Your task to perform on an android device: all mails in gmail Image 0: 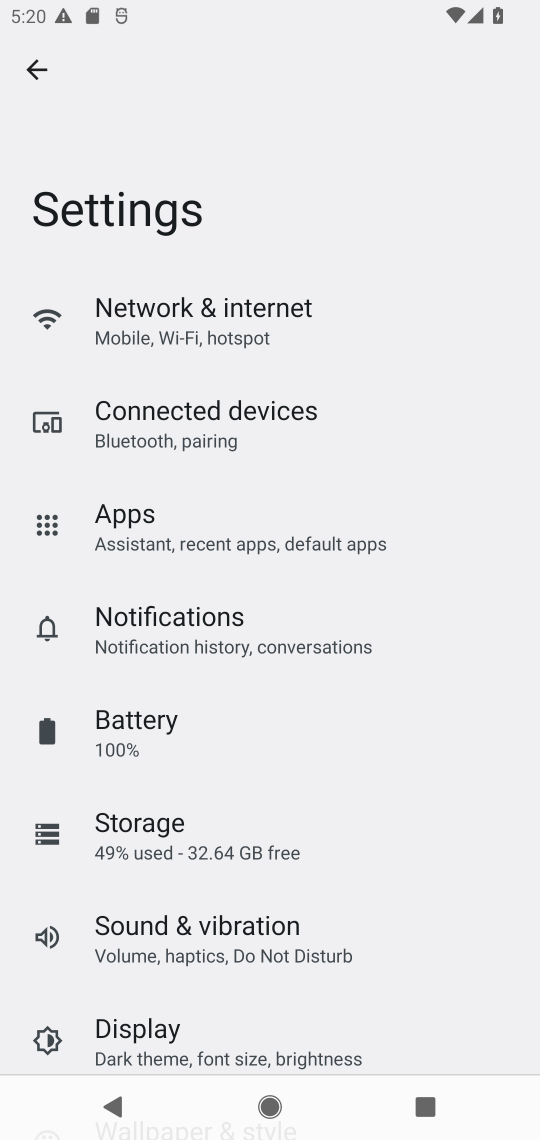
Step 0: press home button
Your task to perform on an android device: all mails in gmail Image 1: 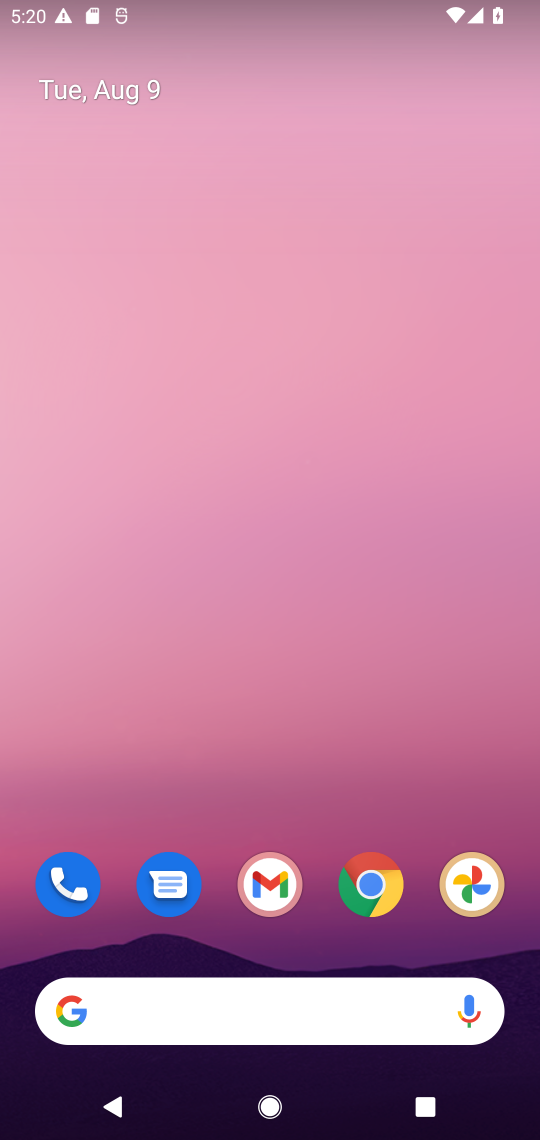
Step 1: click (273, 887)
Your task to perform on an android device: all mails in gmail Image 2: 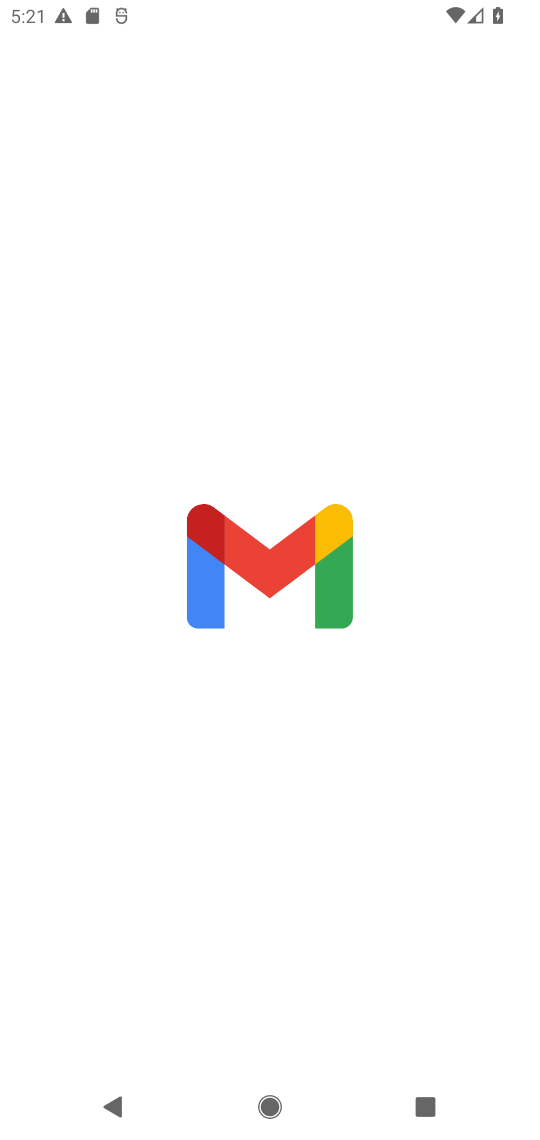
Step 2: press home button
Your task to perform on an android device: all mails in gmail Image 3: 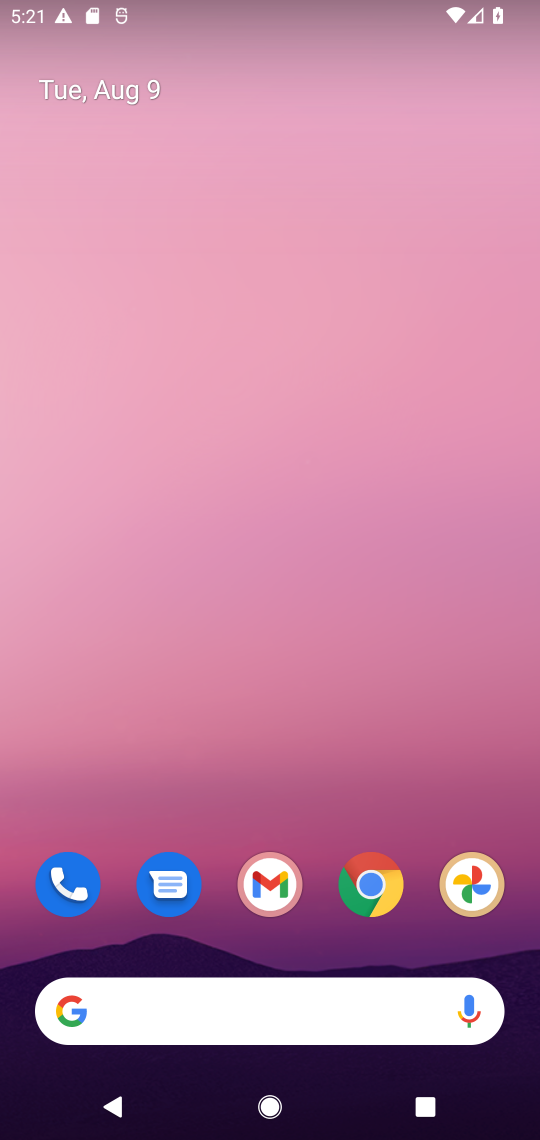
Step 3: click (271, 881)
Your task to perform on an android device: all mails in gmail Image 4: 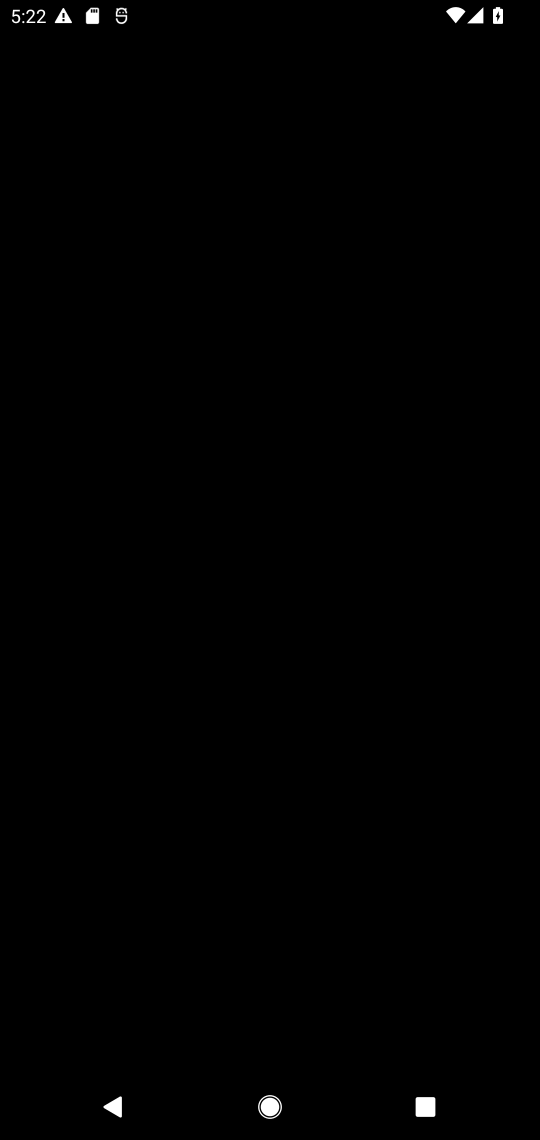
Step 4: press back button
Your task to perform on an android device: all mails in gmail Image 5: 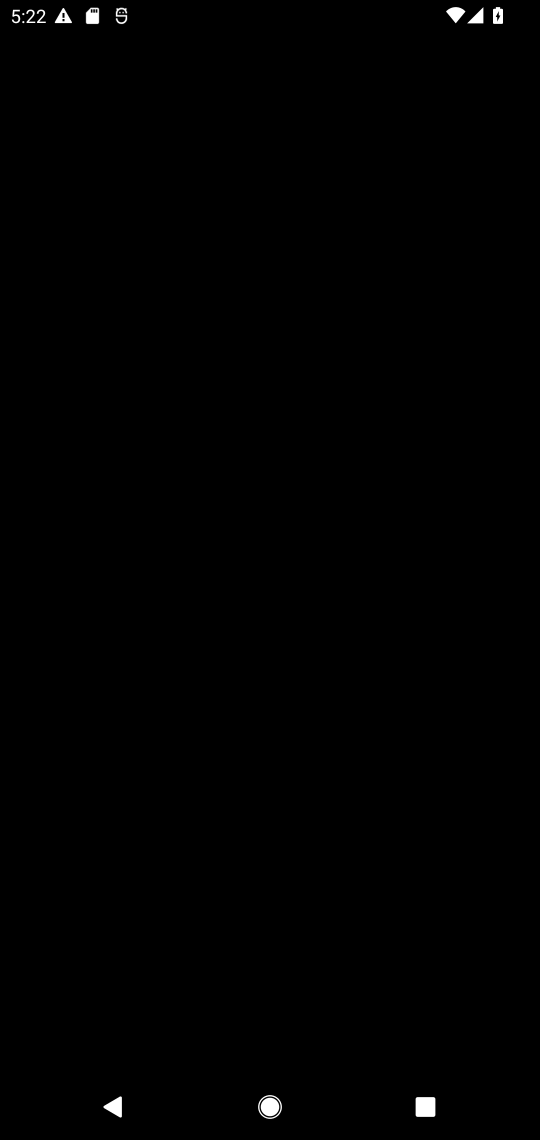
Step 5: press home button
Your task to perform on an android device: all mails in gmail Image 6: 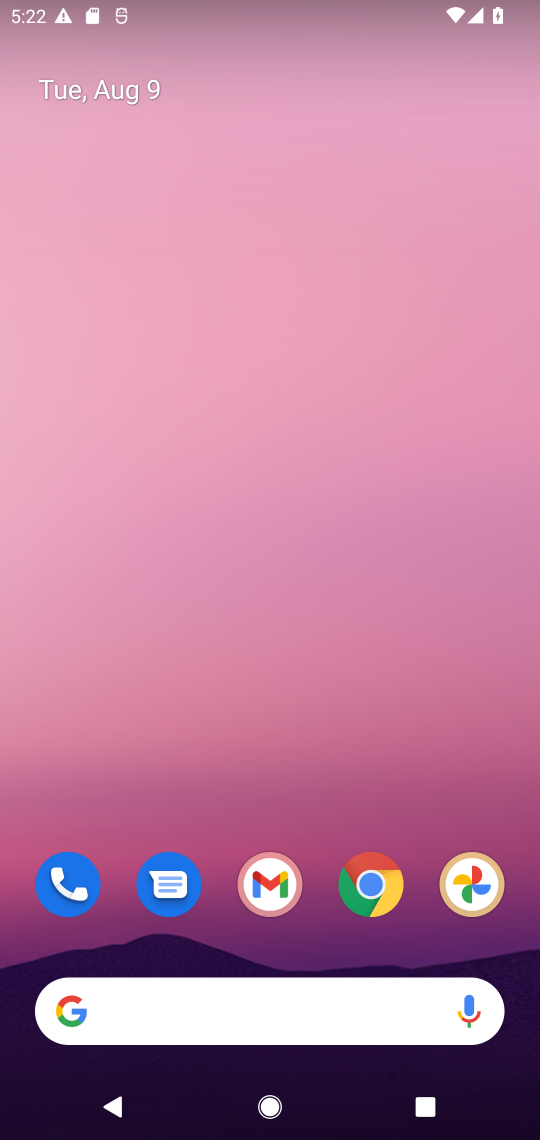
Step 6: click (270, 886)
Your task to perform on an android device: all mails in gmail Image 7: 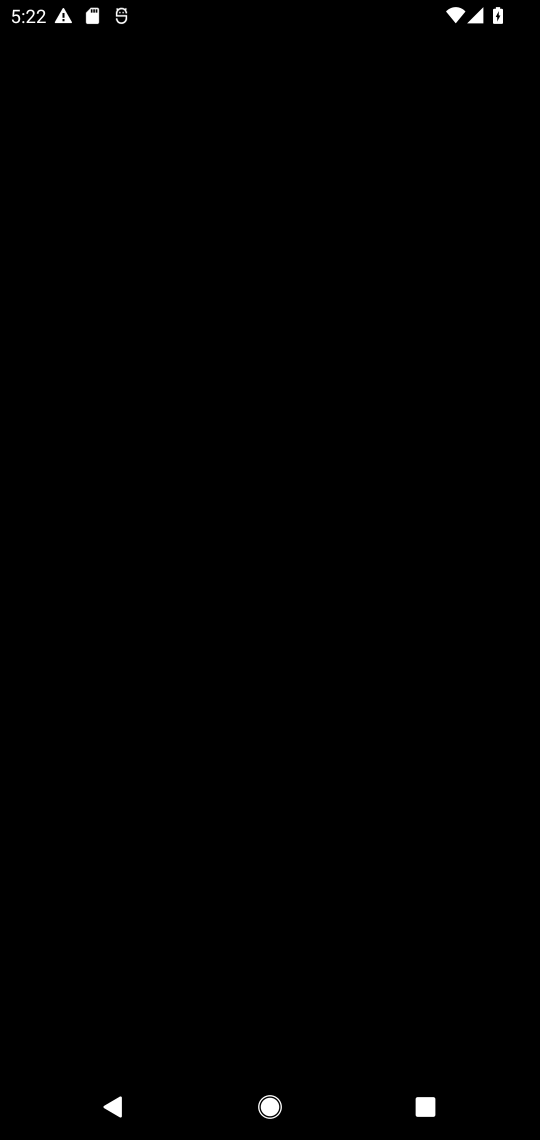
Step 7: click (271, 880)
Your task to perform on an android device: all mails in gmail Image 8: 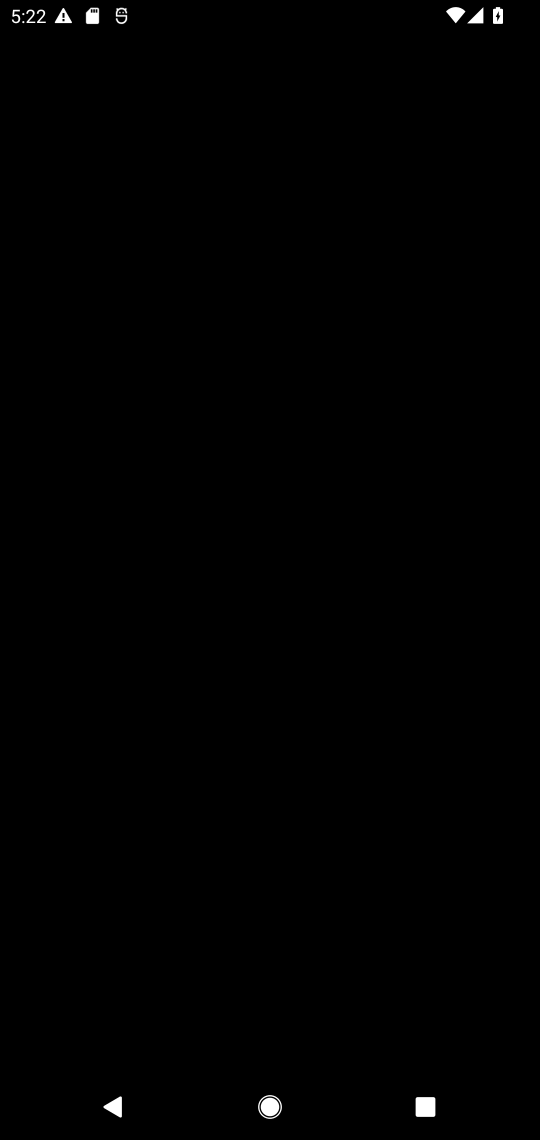
Step 8: task complete